Your task to perform on an android device: Go to network settings Image 0: 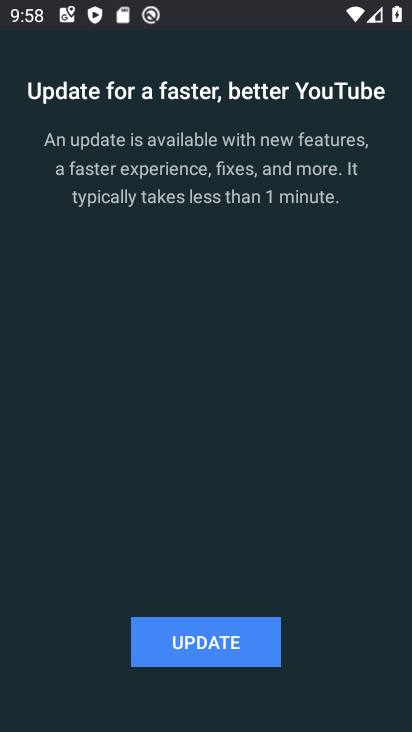
Step 0: press home button
Your task to perform on an android device: Go to network settings Image 1: 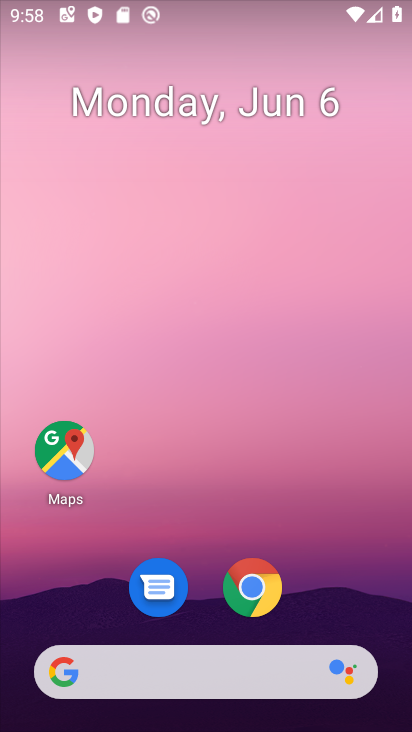
Step 1: drag from (223, 711) to (206, 4)
Your task to perform on an android device: Go to network settings Image 2: 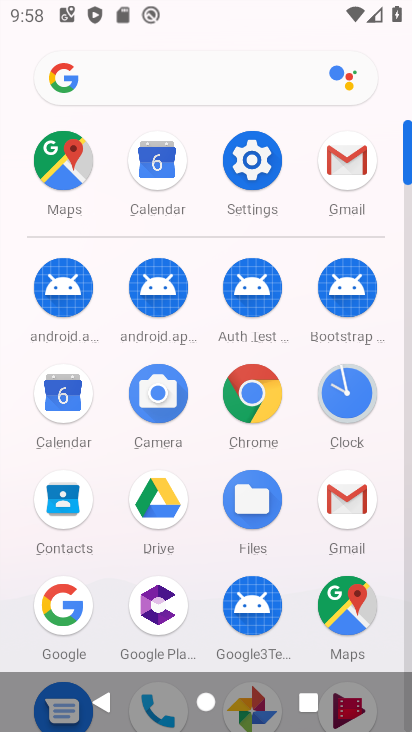
Step 2: click (250, 163)
Your task to perform on an android device: Go to network settings Image 3: 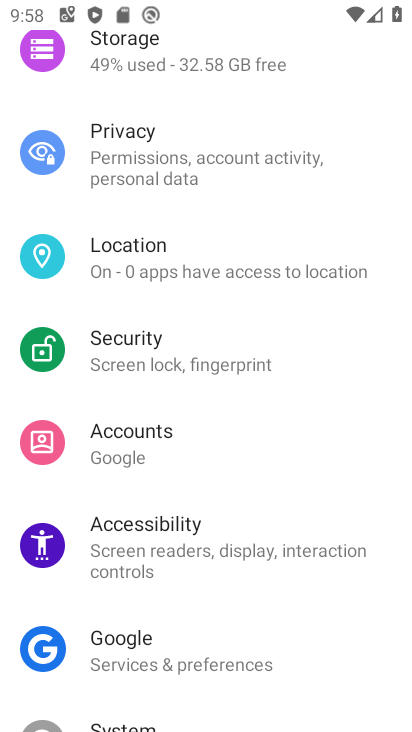
Step 3: drag from (289, 110) to (244, 604)
Your task to perform on an android device: Go to network settings Image 4: 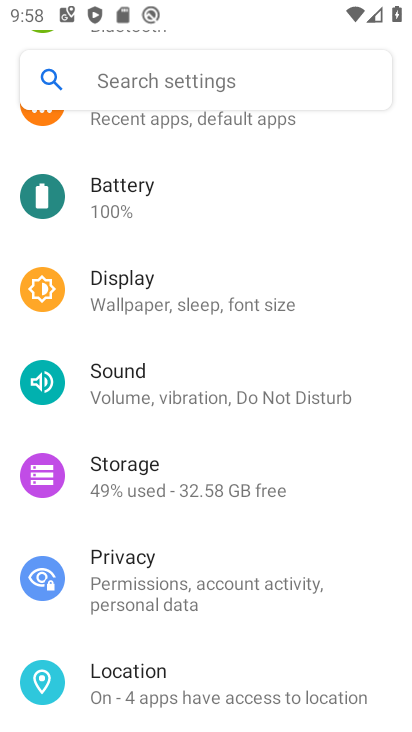
Step 4: drag from (274, 199) to (184, 731)
Your task to perform on an android device: Go to network settings Image 5: 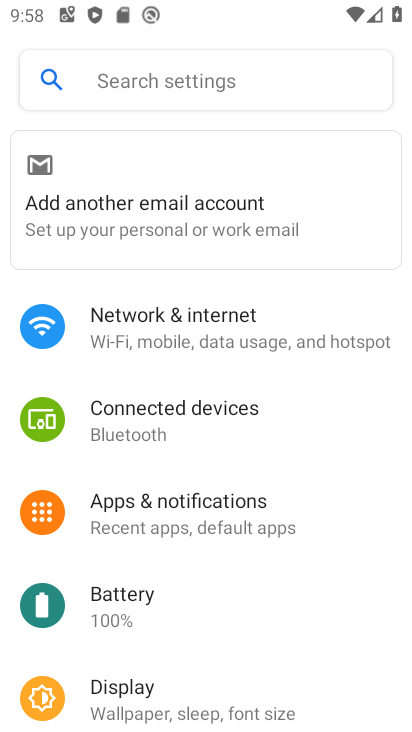
Step 5: click (241, 319)
Your task to perform on an android device: Go to network settings Image 6: 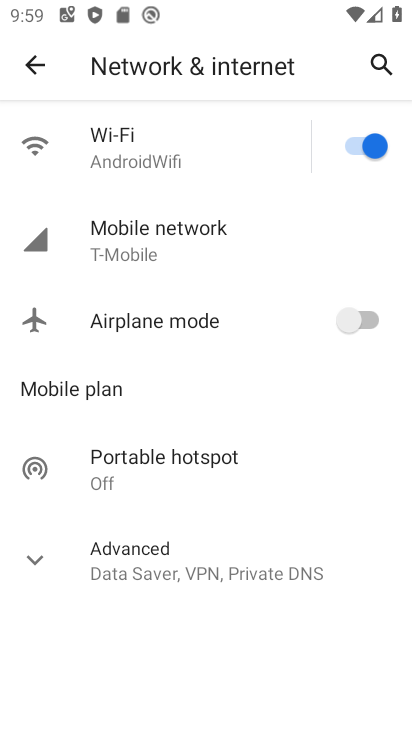
Step 6: task complete